Your task to perform on an android device: Is it going to rain tomorrow? Image 0: 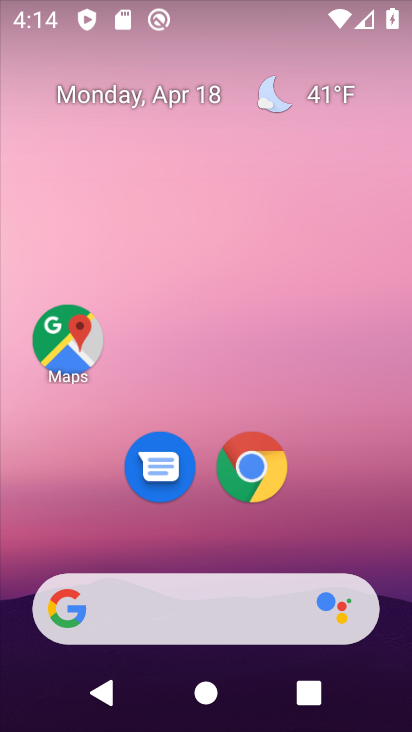
Step 0: click (269, 439)
Your task to perform on an android device: Is it going to rain tomorrow? Image 1: 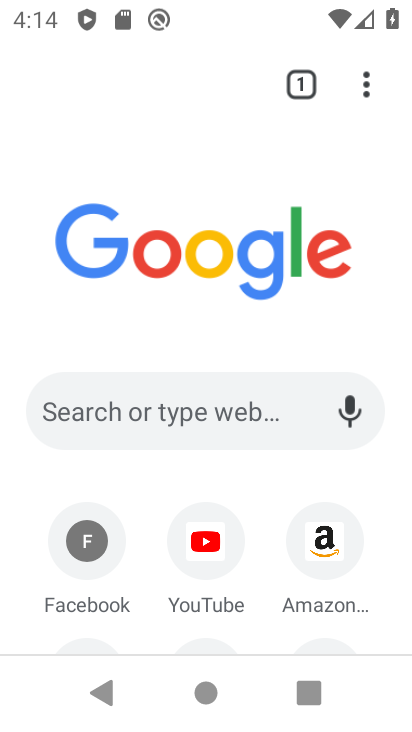
Step 1: click (367, 72)
Your task to perform on an android device: Is it going to rain tomorrow? Image 2: 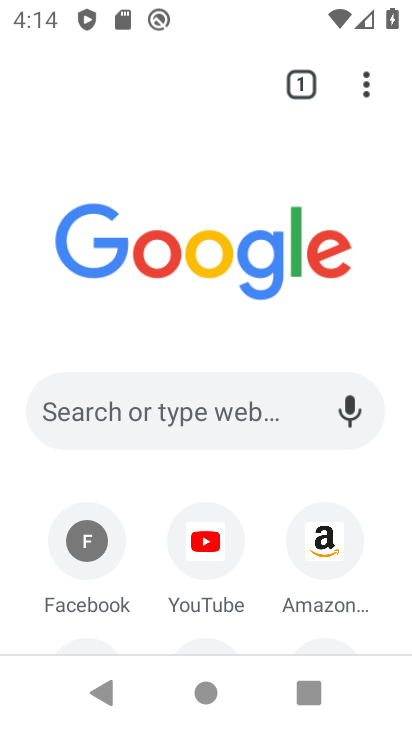
Step 2: click (369, 78)
Your task to perform on an android device: Is it going to rain tomorrow? Image 3: 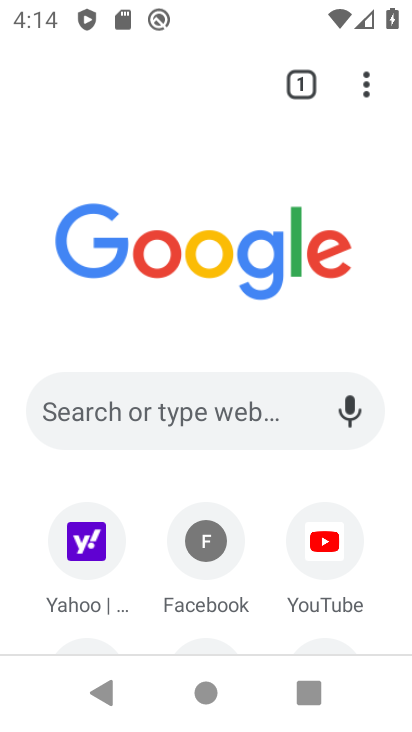
Step 3: click (363, 87)
Your task to perform on an android device: Is it going to rain tomorrow? Image 4: 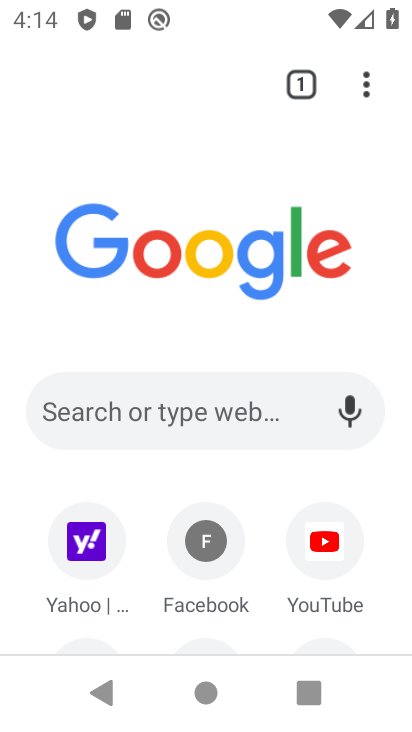
Step 4: click (370, 87)
Your task to perform on an android device: Is it going to rain tomorrow? Image 5: 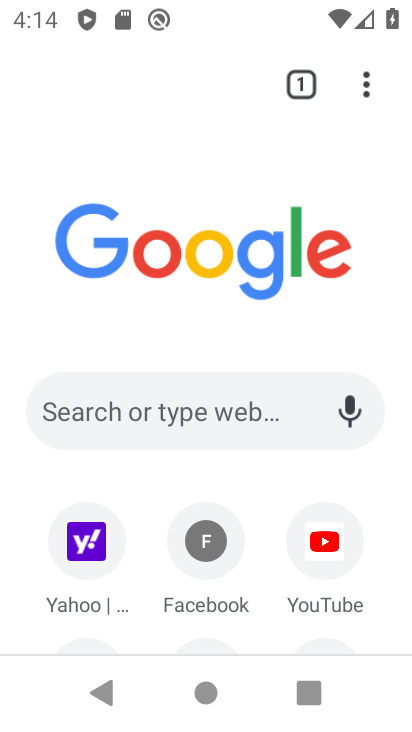
Step 5: click (370, 87)
Your task to perform on an android device: Is it going to rain tomorrow? Image 6: 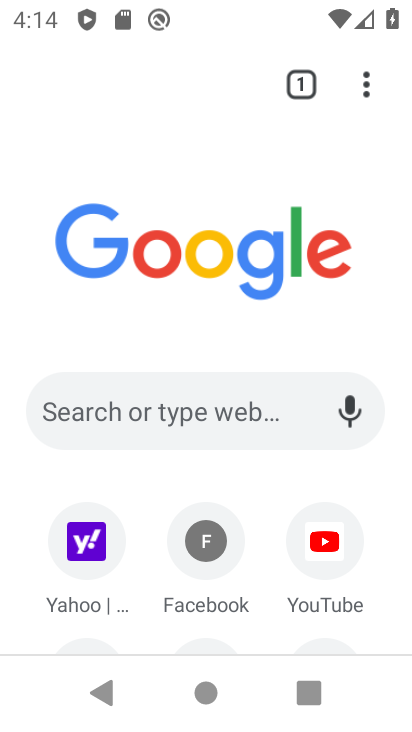
Step 6: click (358, 87)
Your task to perform on an android device: Is it going to rain tomorrow? Image 7: 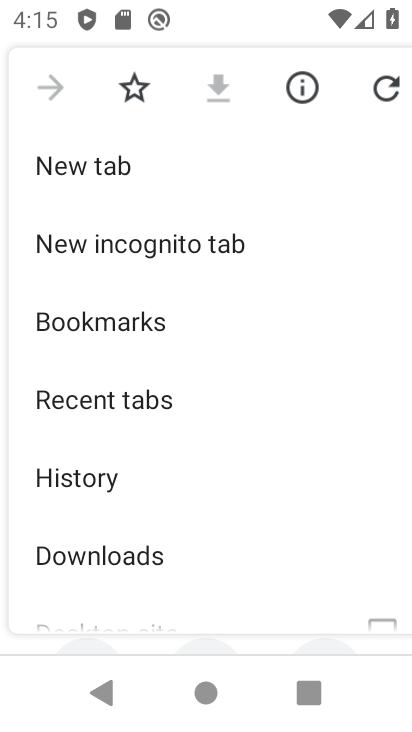
Step 7: drag from (168, 542) to (214, 240)
Your task to perform on an android device: Is it going to rain tomorrow? Image 8: 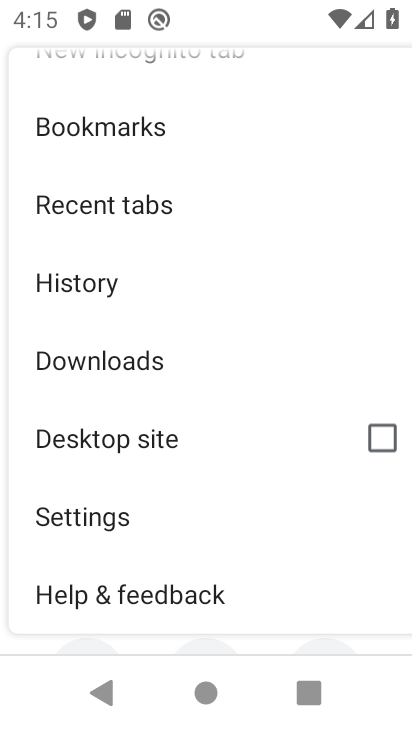
Step 8: press home button
Your task to perform on an android device: Is it going to rain tomorrow? Image 9: 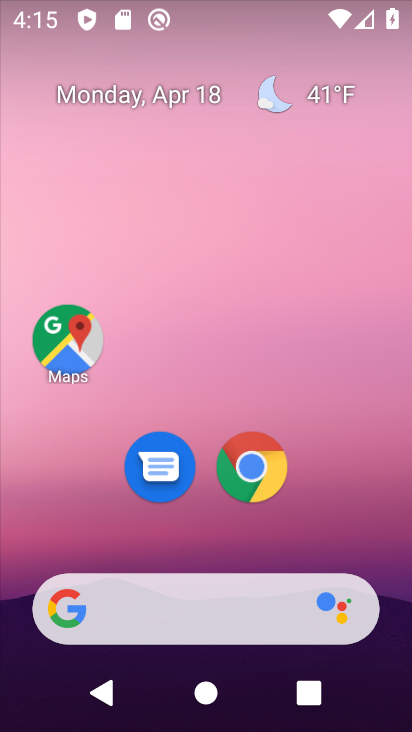
Step 9: drag from (205, 535) to (205, 158)
Your task to perform on an android device: Is it going to rain tomorrow? Image 10: 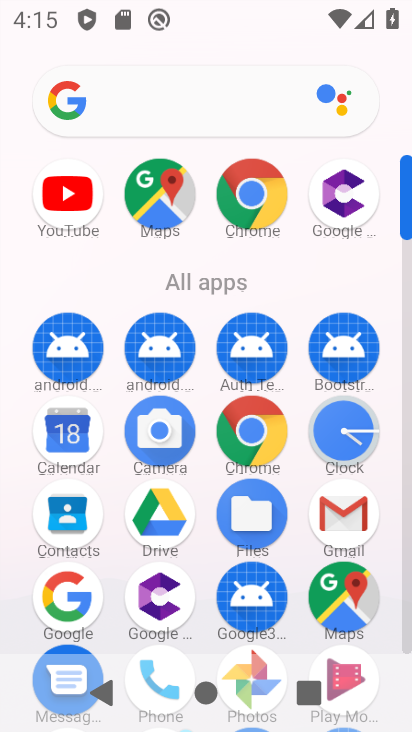
Step 10: click (83, 587)
Your task to perform on an android device: Is it going to rain tomorrow? Image 11: 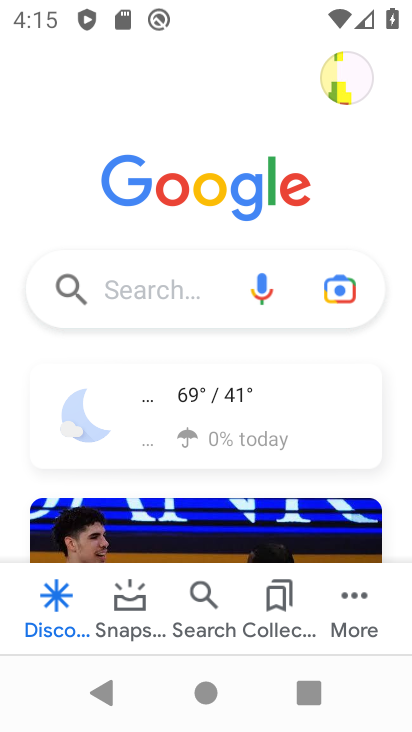
Step 11: click (198, 403)
Your task to perform on an android device: Is it going to rain tomorrow? Image 12: 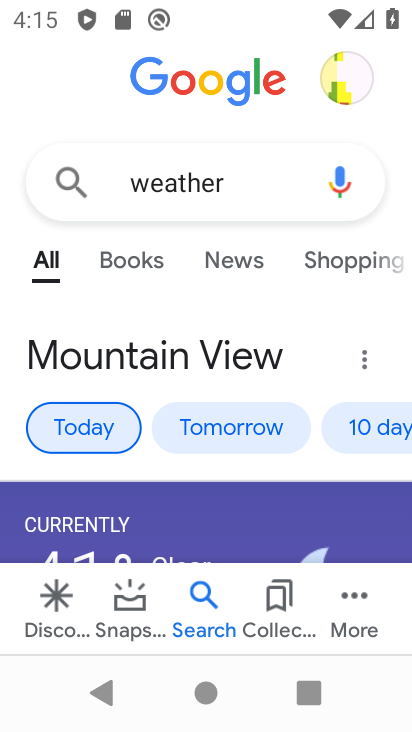
Step 12: click (228, 422)
Your task to perform on an android device: Is it going to rain tomorrow? Image 13: 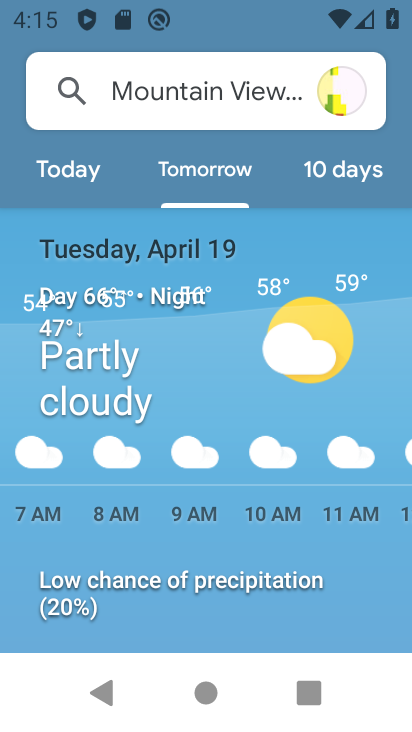
Step 13: task complete